Your task to perform on an android device: turn on sleep mode Image 0: 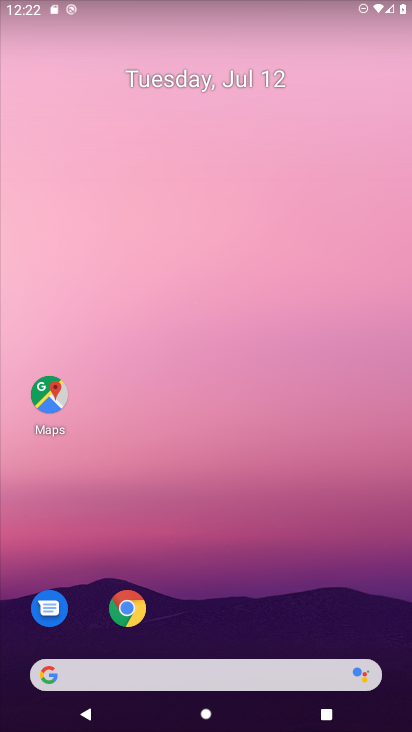
Step 0: drag from (211, 649) to (149, 145)
Your task to perform on an android device: turn on sleep mode Image 1: 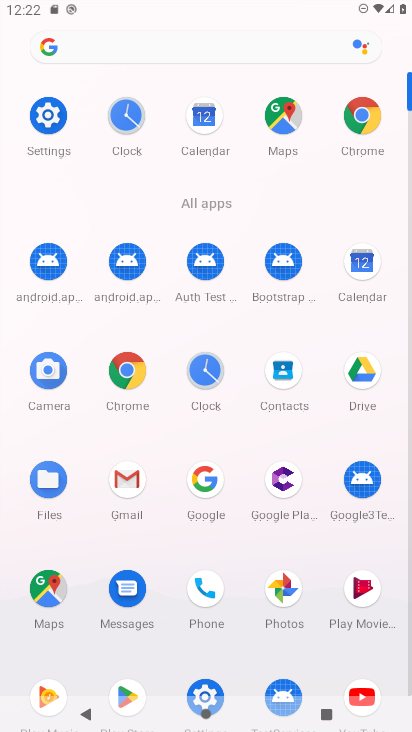
Step 1: click (37, 128)
Your task to perform on an android device: turn on sleep mode Image 2: 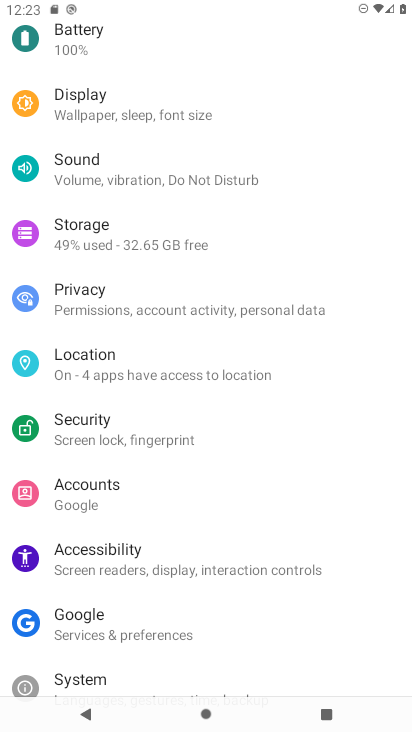
Step 2: task complete